Your task to perform on an android device: check out phone information Image 0: 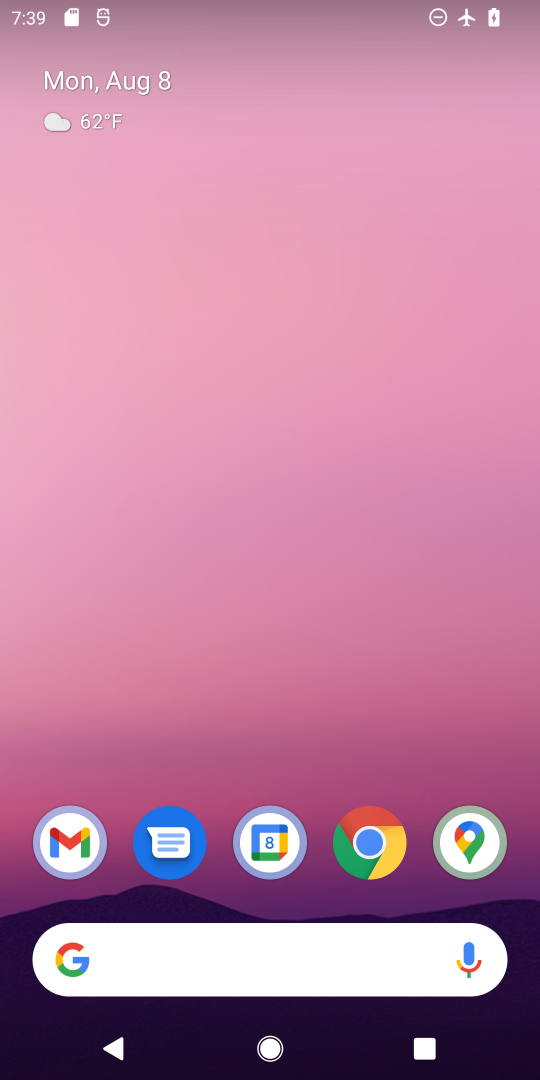
Step 0: drag from (339, 919) to (209, 40)
Your task to perform on an android device: check out phone information Image 1: 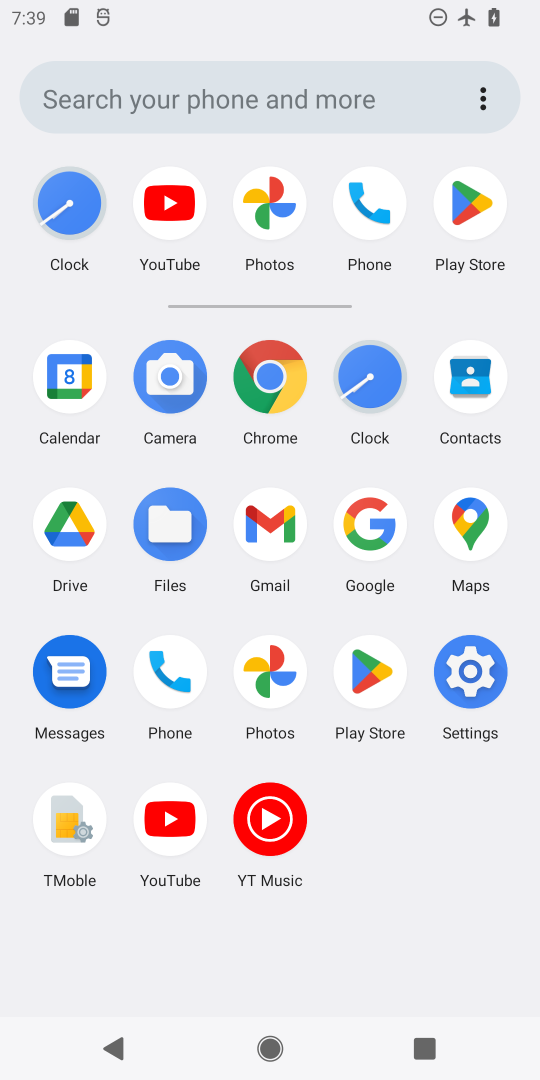
Step 1: click (454, 681)
Your task to perform on an android device: check out phone information Image 2: 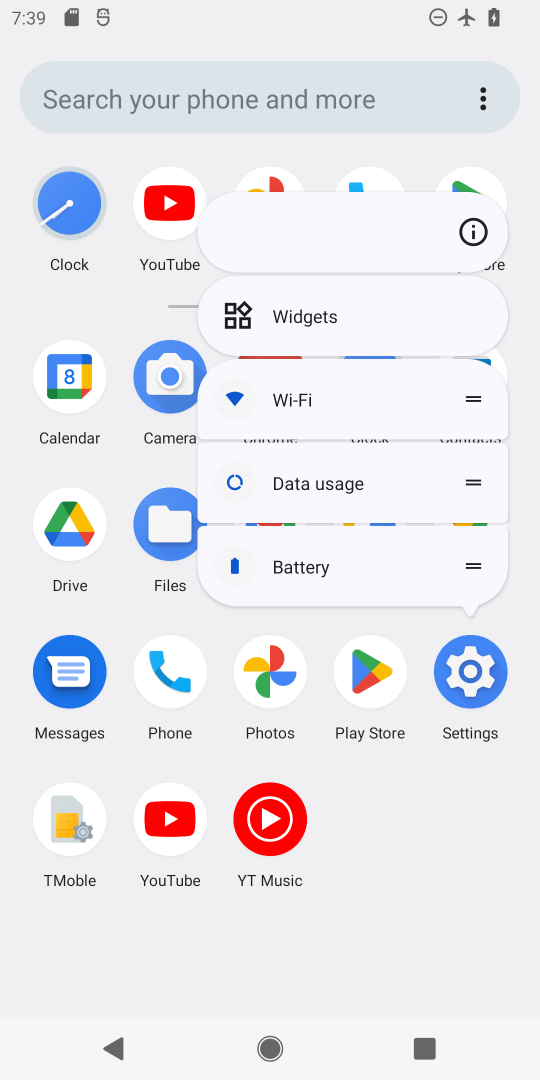
Step 2: click (434, 676)
Your task to perform on an android device: check out phone information Image 3: 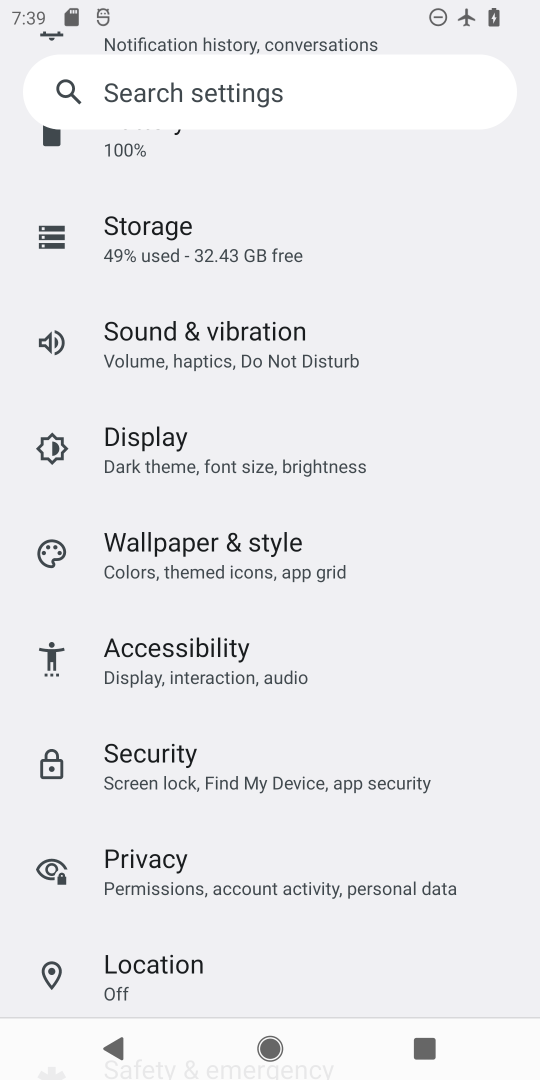
Step 3: drag from (296, 694) to (262, 328)
Your task to perform on an android device: check out phone information Image 4: 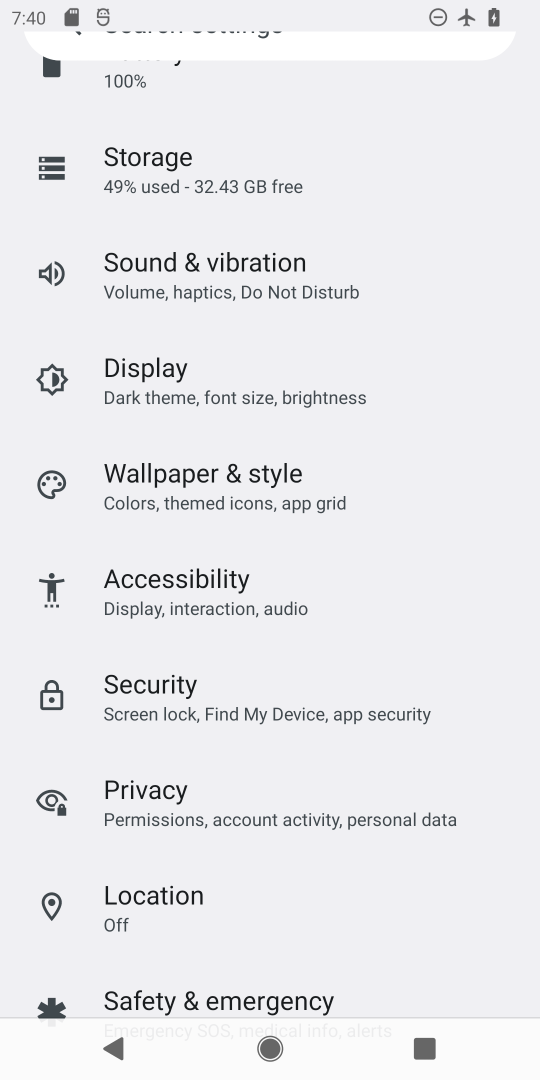
Step 4: drag from (156, 790) to (102, 302)
Your task to perform on an android device: check out phone information Image 5: 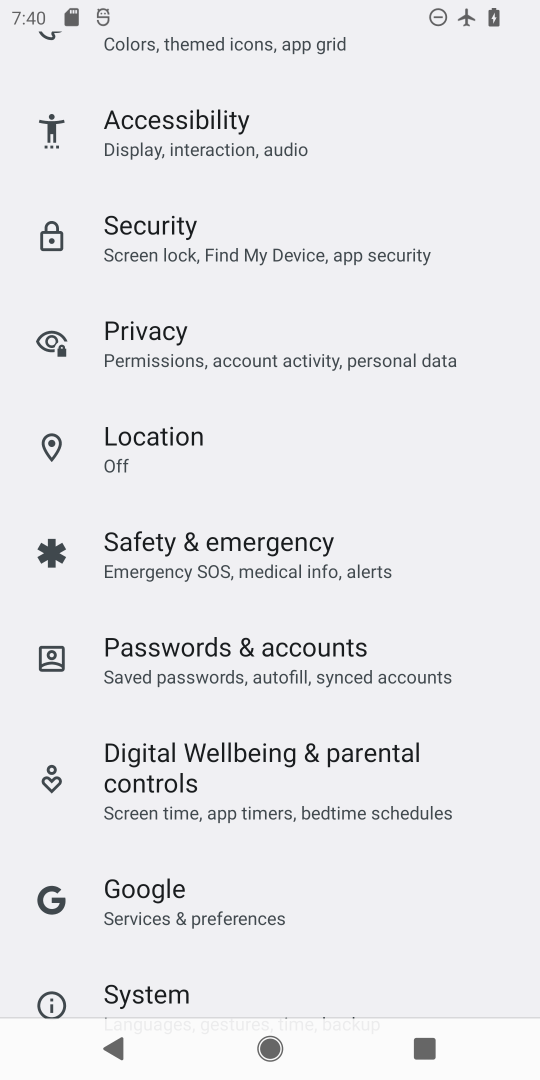
Step 5: drag from (320, 830) to (223, 234)
Your task to perform on an android device: check out phone information Image 6: 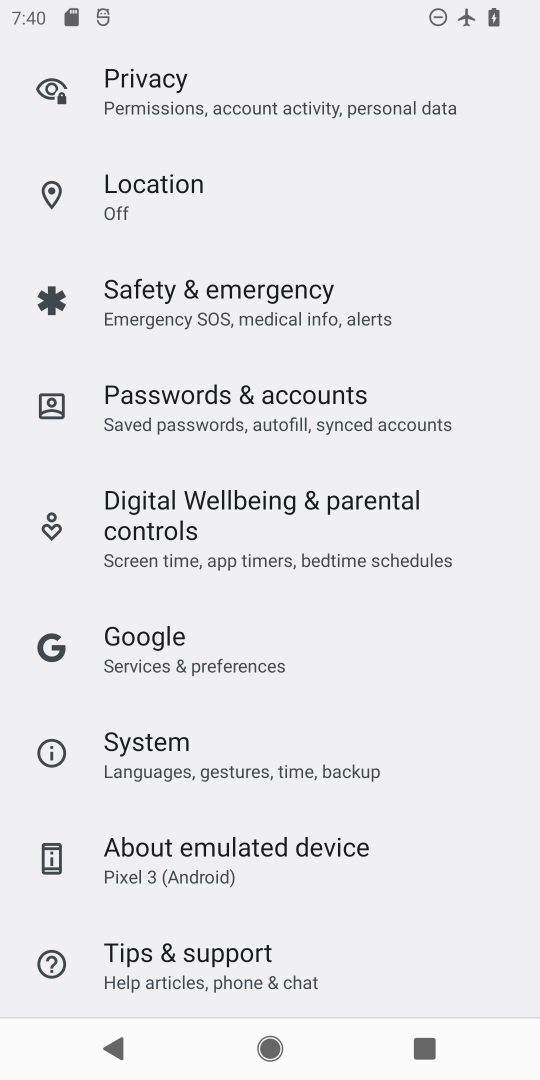
Step 6: click (136, 759)
Your task to perform on an android device: check out phone information Image 7: 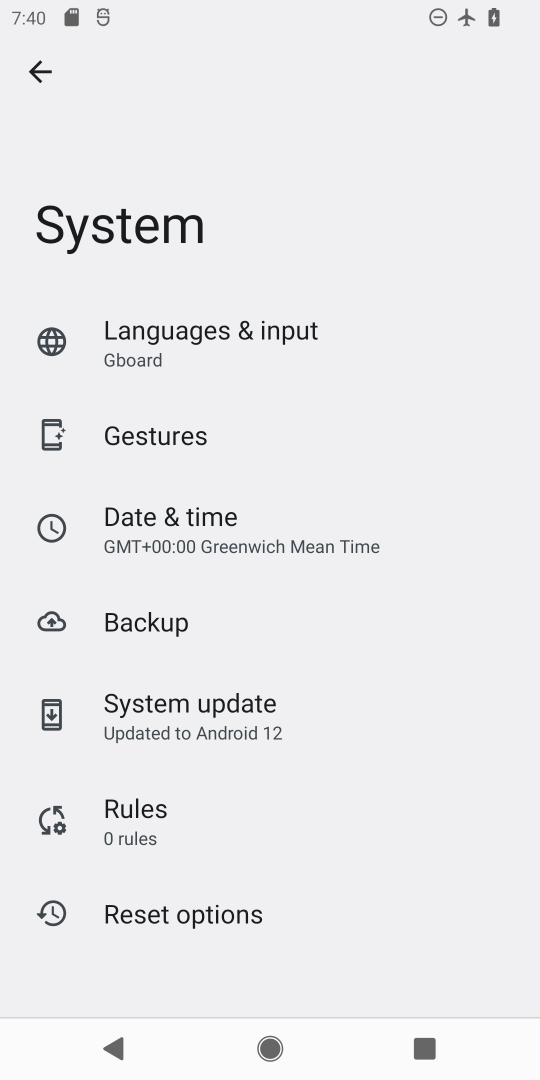
Step 7: task complete